Your task to perform on an android device: toggle notification dots Image 0: 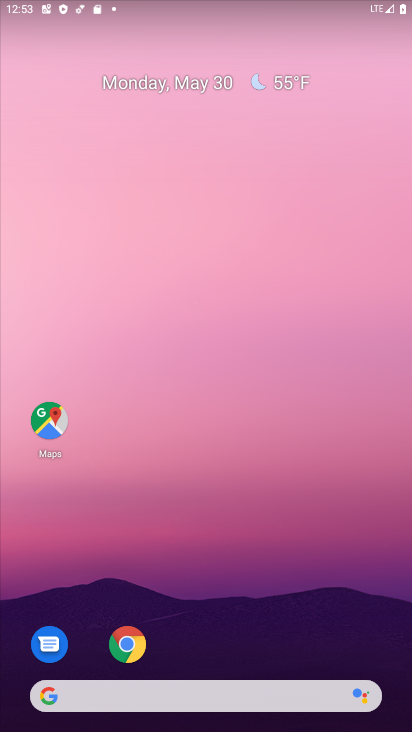
Step 0: drag from (262, 656) to (317, 261)
Your task to perform on an android device: toggle notification dots Image 1: 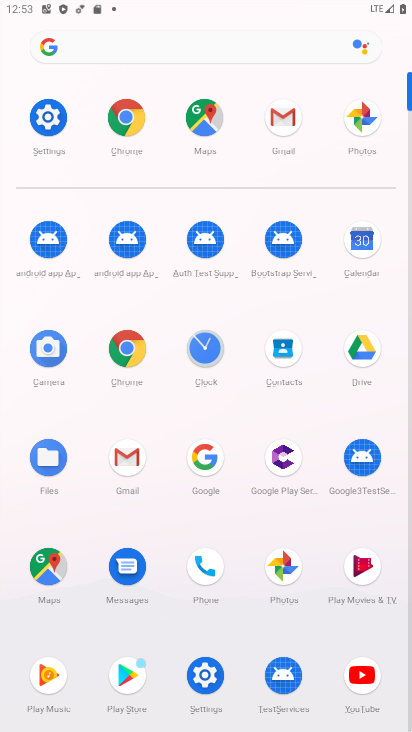
Step 1: click (40, 99)
Your task to perform on an android device: toggle notification dots Image 2: 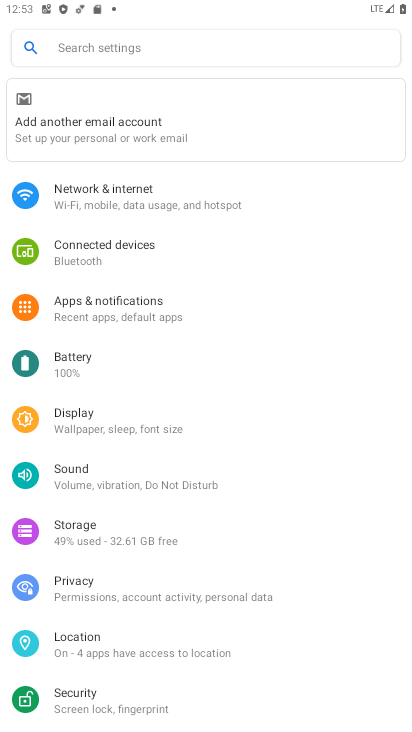
Step 2: click (142, 303)
Your task to perform on an android device: toggle notification dots Image 3: 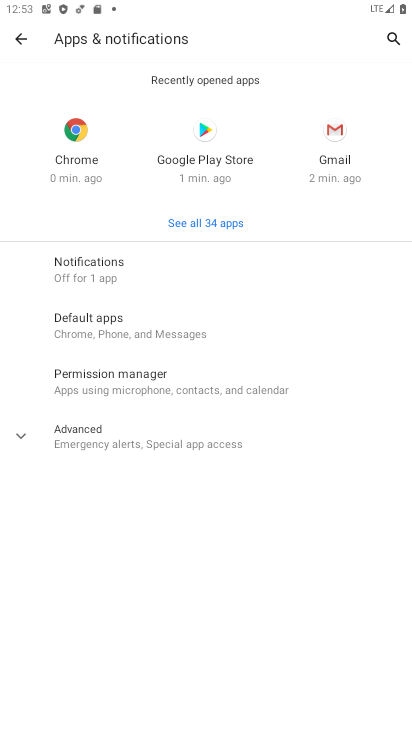
Step 3: click (165, 263)
Your task to perform on an android device: toggle notification dots Image 4: 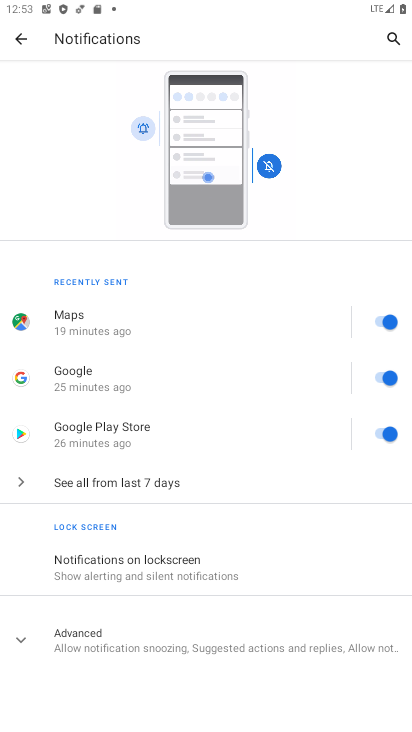
Step 4: drag from (292, 589) to (305, 361)
Your task to perform on an android device: toggle notification dots Image 5: 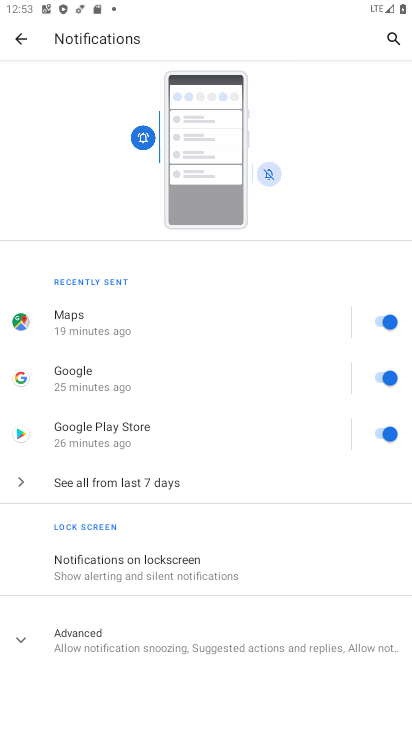
Step 5: click (322, 586)
Your task to perform on an android device: toggle notification dots Image 6: 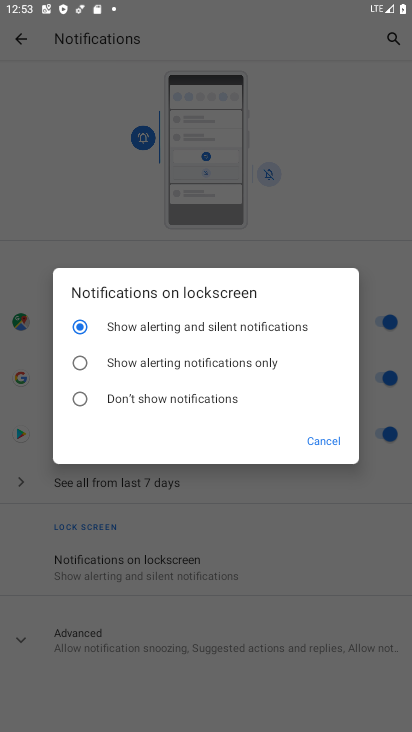
Step 6: click (323, 448)
Your task to perform on an android device: toggle notification dots Image 7: 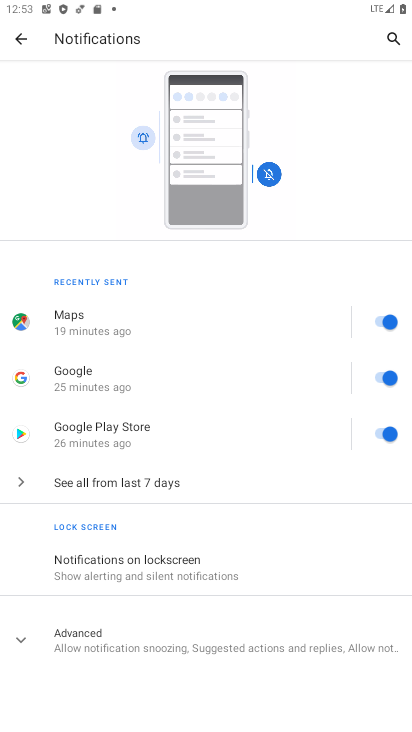
Step 7: task complete